Your task to perform on an android device: turn on javascript in the chrome app Image 0: 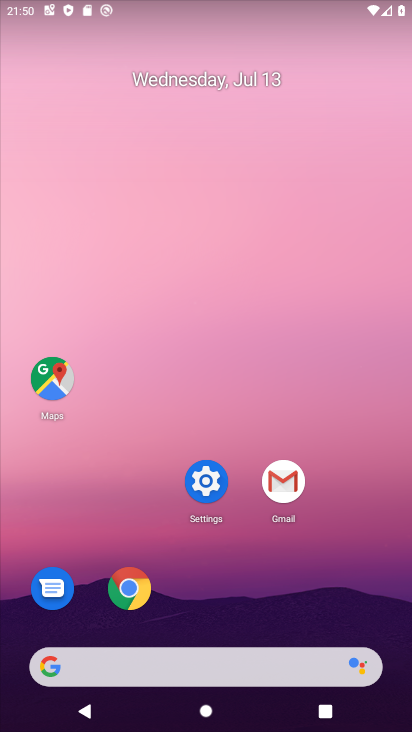
Step 0: click (133, 586)
Your task to perform on an android device: turn on javascript in the chrome app Image 1: 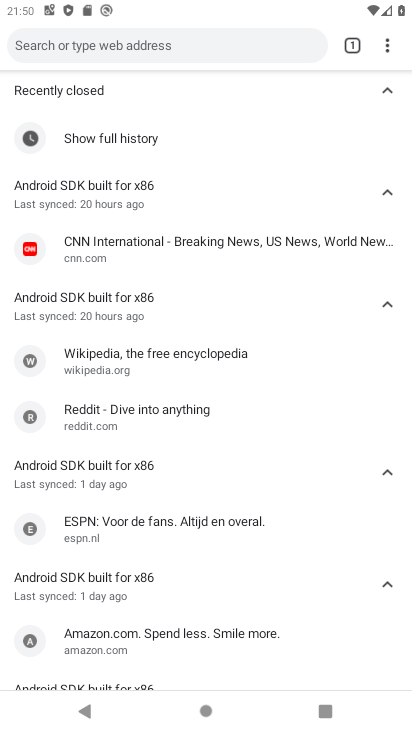
Step 1: click (388, 43)
Your task to perform on an android device: turn on javascript in the chrome app Image 2: 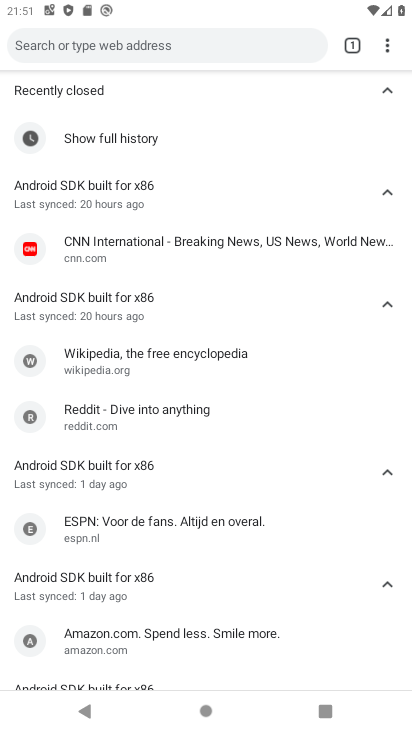
Step 2: click (388, 42)
Your task to perform on an android device: turn on javascript in the chrome app Image 3: 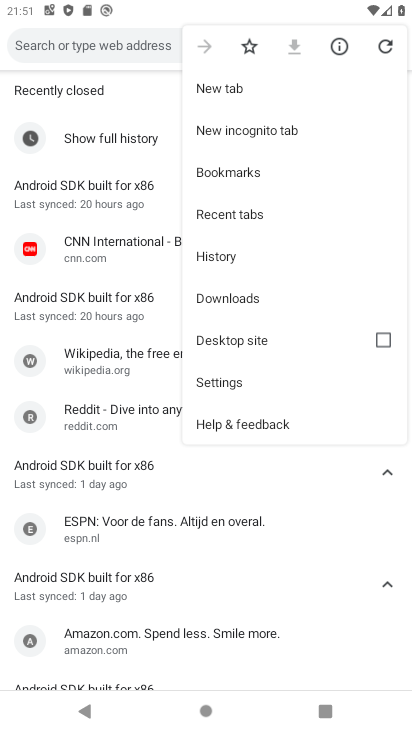
Step 3: click (226, 383)
Your task to perform on an android device: turn on javascript in the chrome app Image 4: 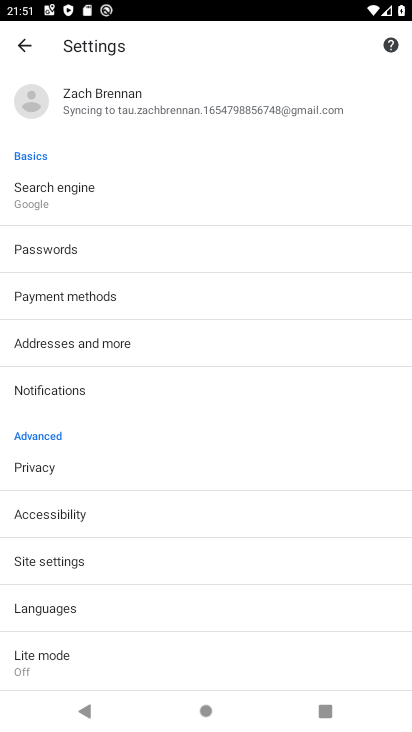
Step 4: click (44, 564)
Your task to perform on an android device: turn on javascript in the chrome app Image 5: 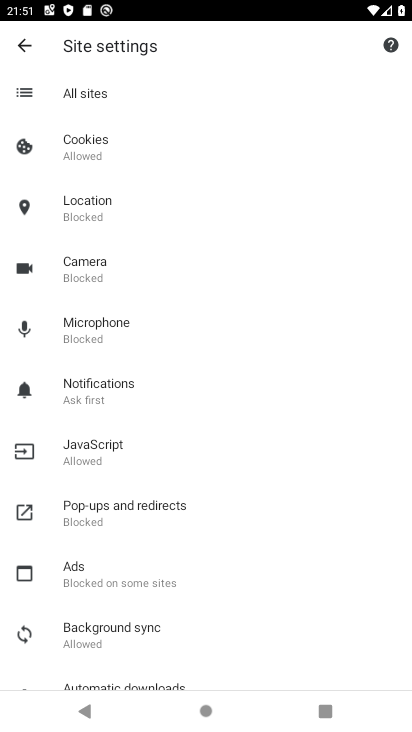
Step 5: click (101, 453)
Your task to perform on an android device: turn on javascript in the chrome app Image 6: 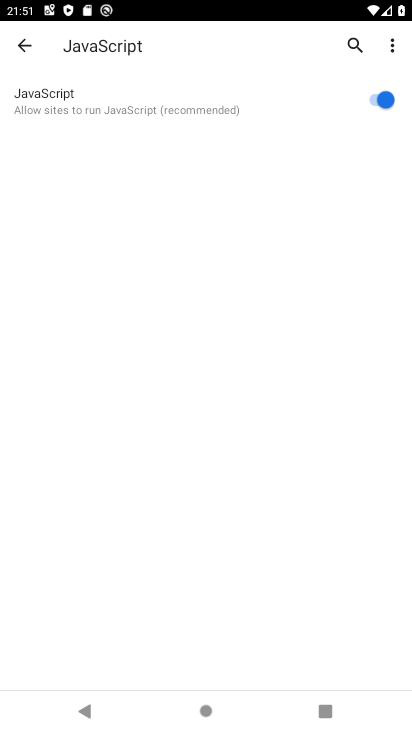
Step 6: task complete